Your task to perform on an android device: stop showing notifications on the lock screen Image 0: 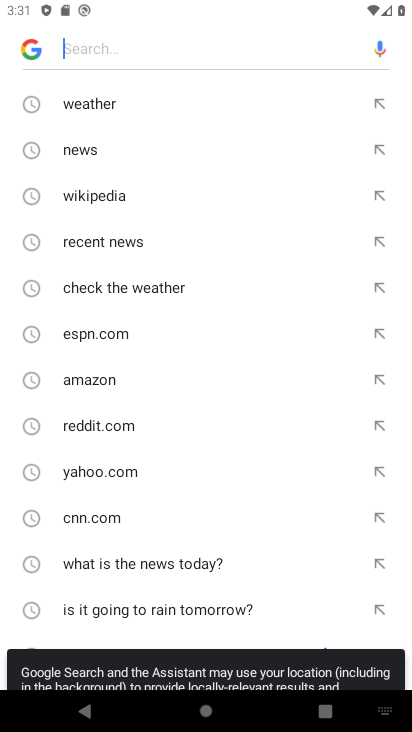
Step 0: press back button
Your task to perform on an android device: stop showing notifications on the lock screen Image 1: 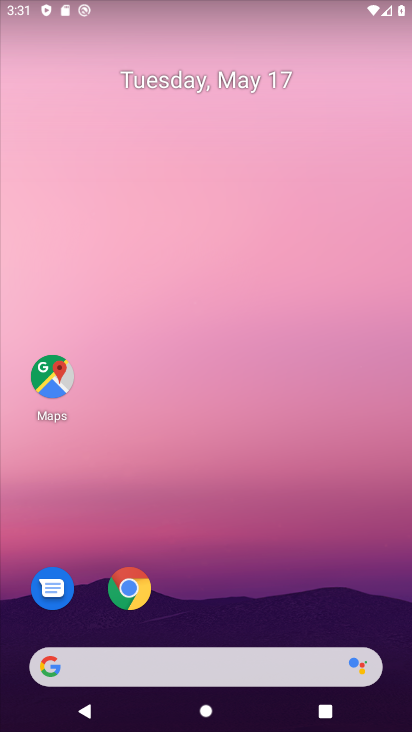
Step 1: drag from (246, 572) to (212, 0)
Your task to perform on an android device: stop showing notifications on the lock screen Image 2: 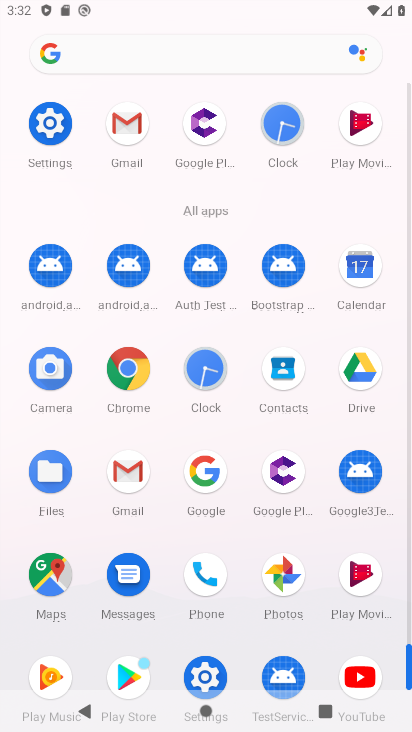
Step 2: click (49, 122)
Your task to perform on an android device: stop showing notifications on the lock screen Image 3: 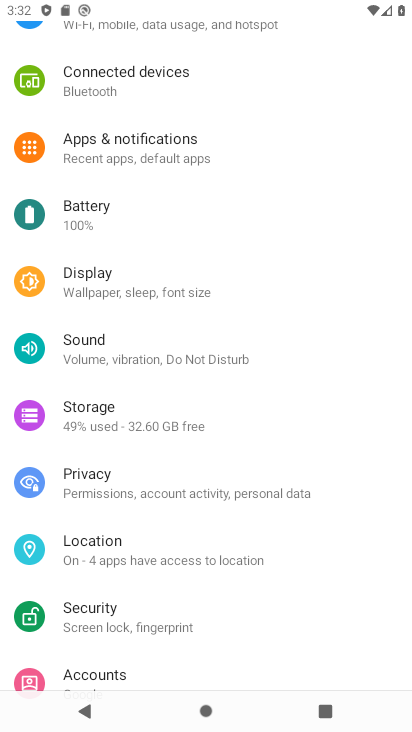
Step 3: click (145, 155)
Your task to perform on an android device: stop showing notifications on the lock screen Image 4: 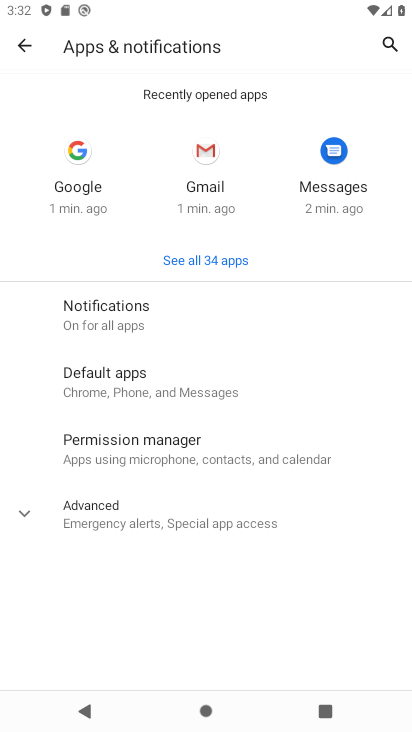
Step 4: click (110, 310)
Your task to perform on an android device: stop showing notifications on the lock screen Image 5: 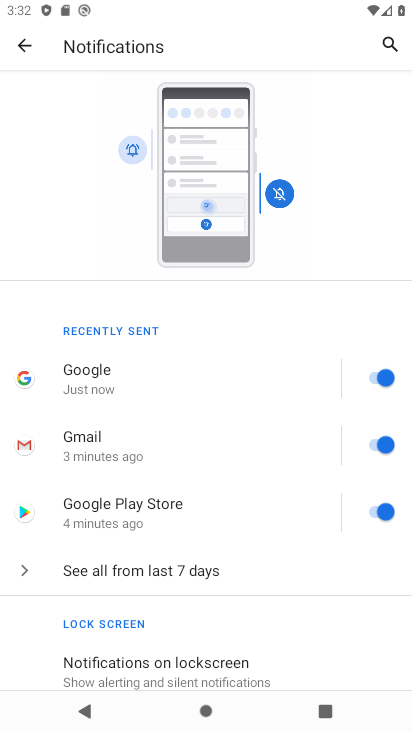
Step 5: drag from (139, 618) to (168, 426)
Your task to perform on an android device: stop showing notifications on the lock screen Image 6: 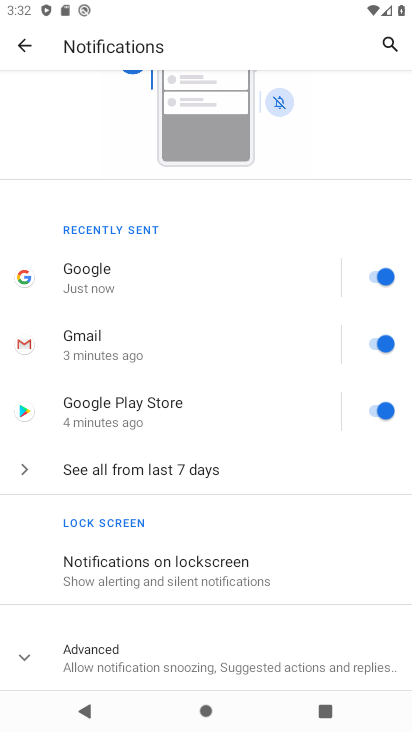
Step 6: click (132, 566)
Your task to perform on an android device: stop showing notifications on the lock screen Image 7: 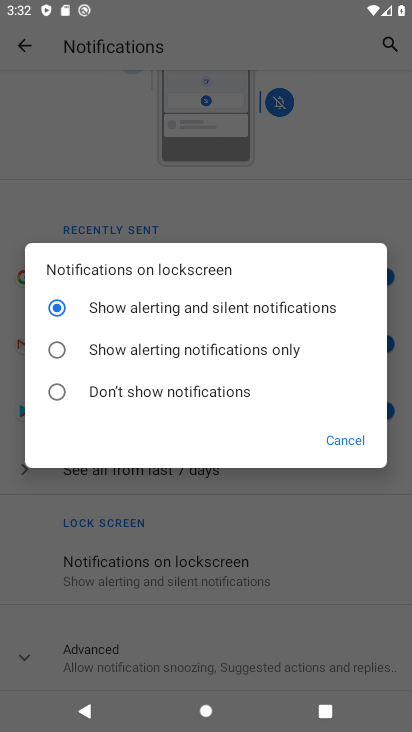
Step 7: click (60, 389)
Your task to perform on an android device: stop showing notifications on the lock screen Image 8: 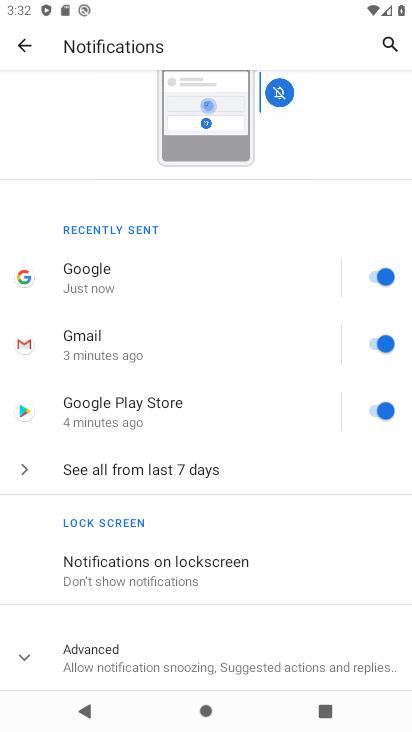
Step 8: task complete